Your task to perform on an android device: open wifi settings Image 0: 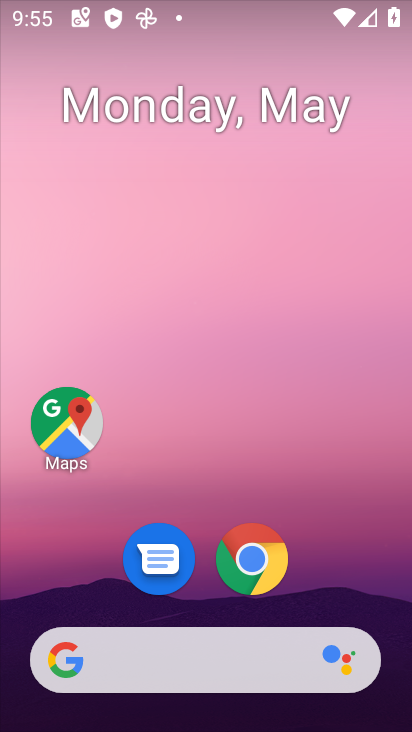
Step 0: drag from (318, 566) to (226, 146)
Your task to perform on an android device: open wifi settings Image 1: 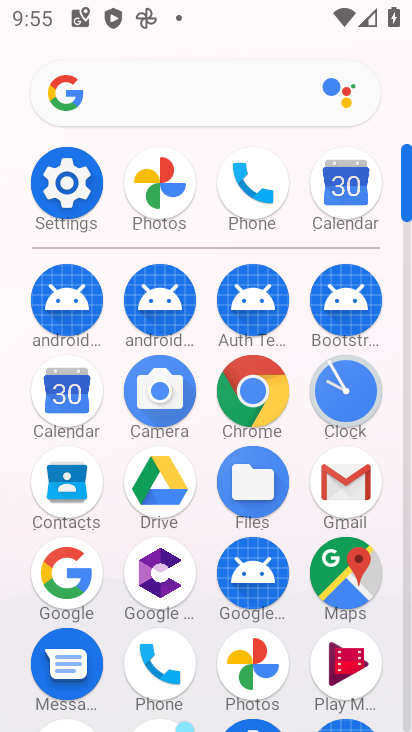
Step 1: click (76, 186)
Your task to perform on an android device: open wifi settings Image 2: 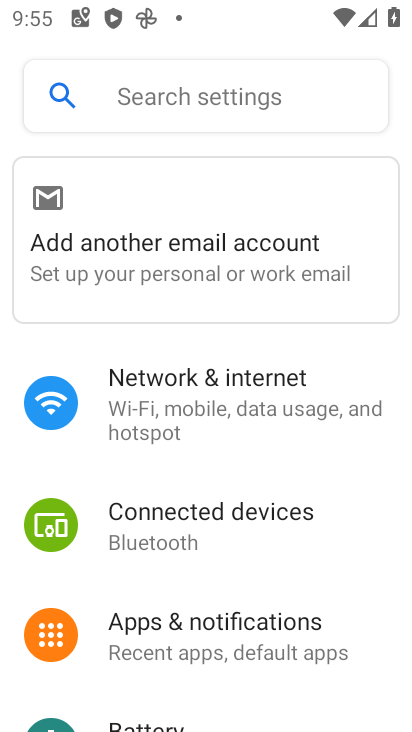
Step 2: click (157, 404)
Your task to perform on an android device: open wifi settings Image 3: 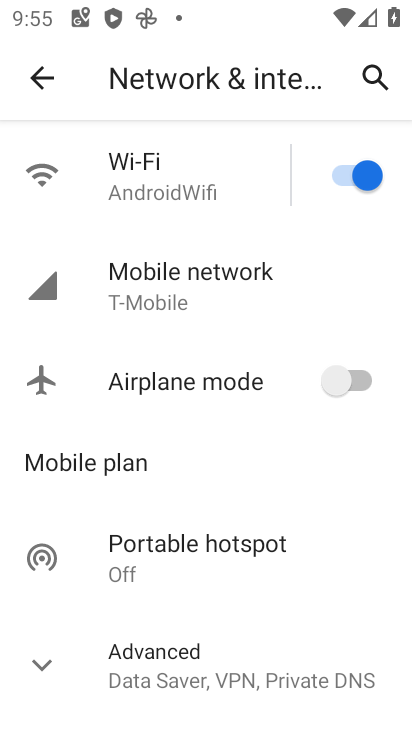
Step 3: task complete